Your task to perform on an android device: turn on the 24-hour format for clock Image 0: 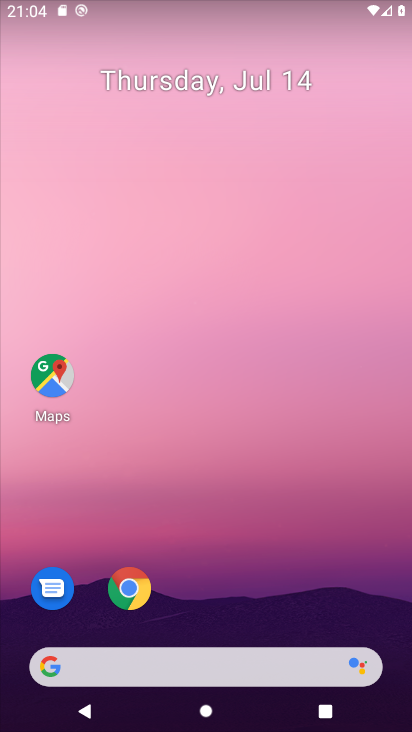
Step 0: drag from (319, 569) to (338, 71)
Your task to perform on an android device: turn on the 24-hour format for clock Image 1: 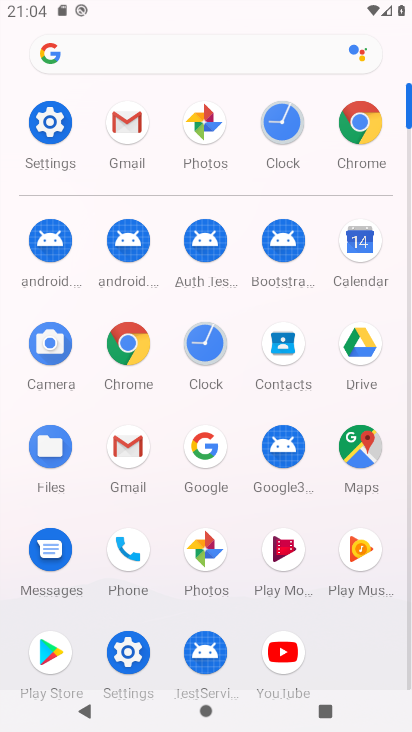
Step 1: click (201, 342)
Your task to perform on an android device: turn on the 24-hour format for clock Image 2: 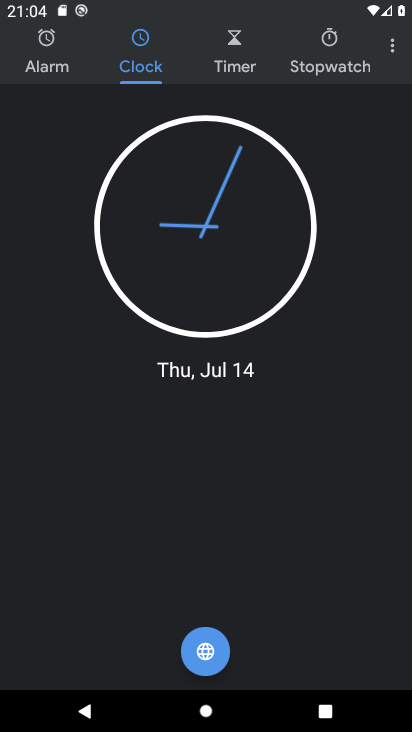
Step 2: click (393, 51)
Your task to perform on an android device: turn on the 24-hour format for clock Image 3: 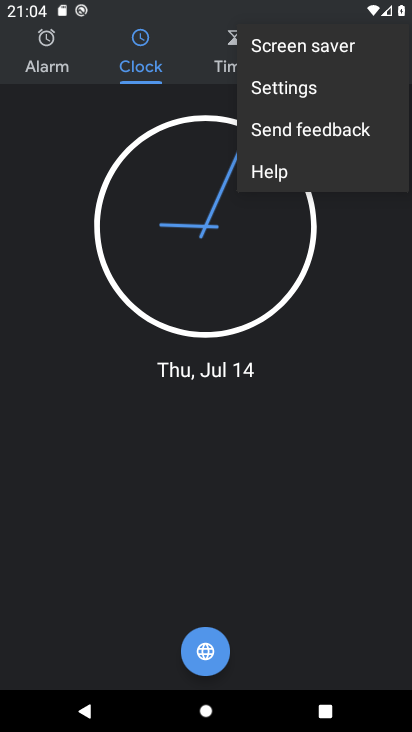
Step 3: click (334, 81)
Your task to perform on an android device: turn on the 24-hour format for clock Image 4: 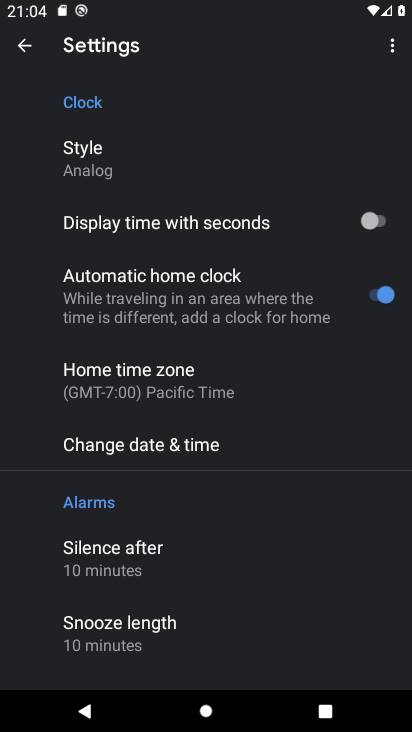
Step 4: click (225, 441)
Your task to perform on an android device: turn on the 24-hour format for clock Image 5: 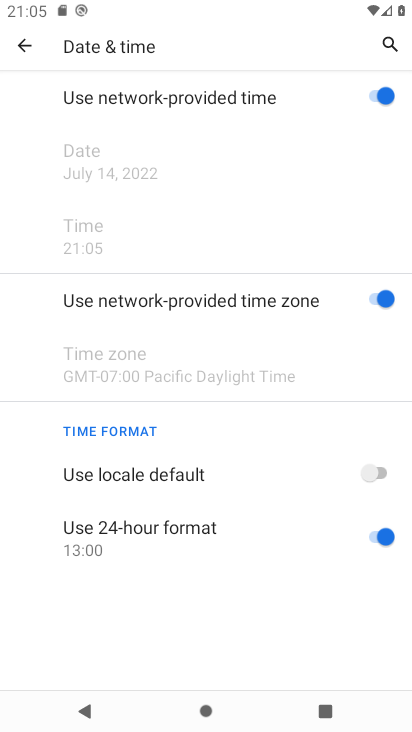
Step 5: task complete